Your task to perform on an android device: toggle sleep mode Image 0: 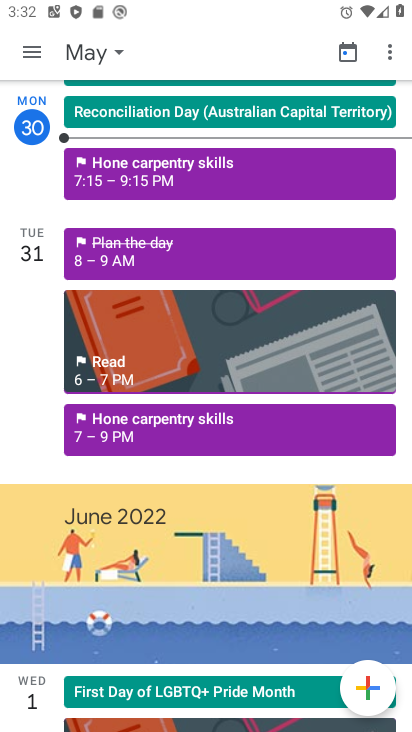
Step 0: press home button
Your task to perform on an android device: toggle sleep mode Image 1: 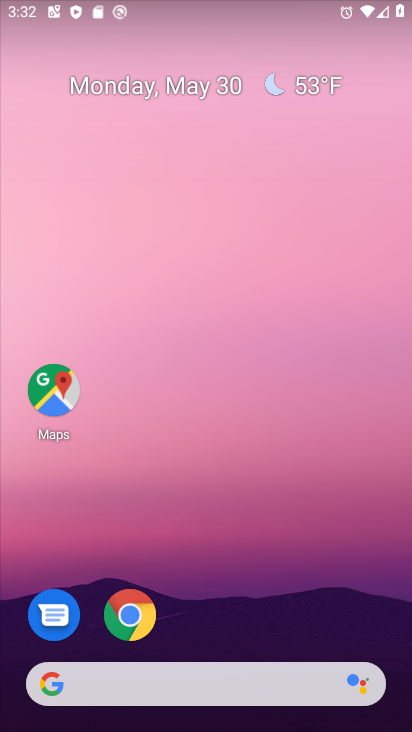
Step 1: drag from (334, 10) to (254, 455)
Your task to perform on an android device: toggle sleep mode Image 2: 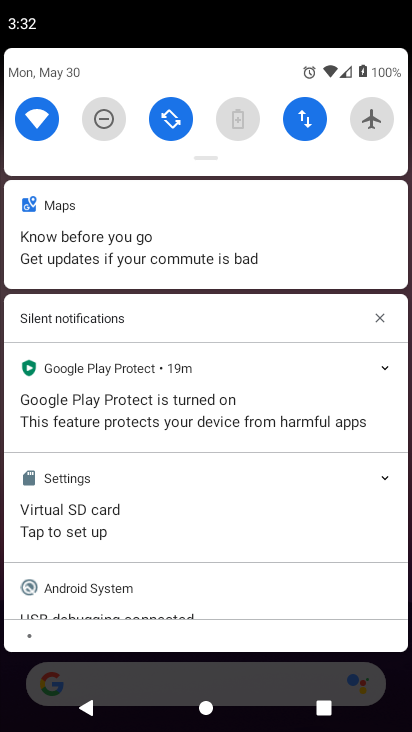
Step 2: drag from (163, 149) to (145, 526)
Your task to perform on an android device: toggle sleep mode Image 3: 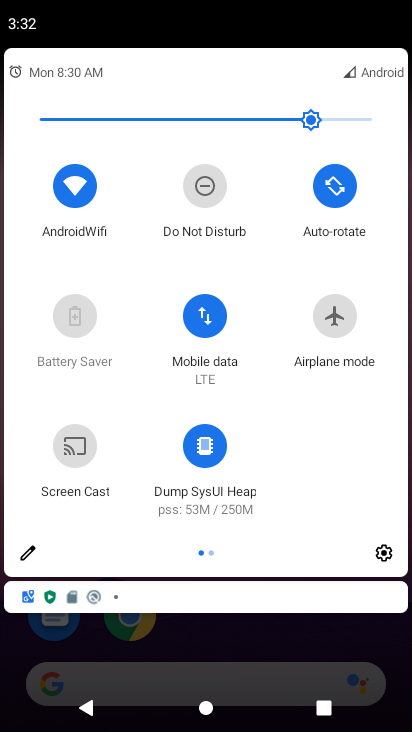
Step 3: click (32, 548)
Your task to perform on an android device: toggle sleep mode Image 4: 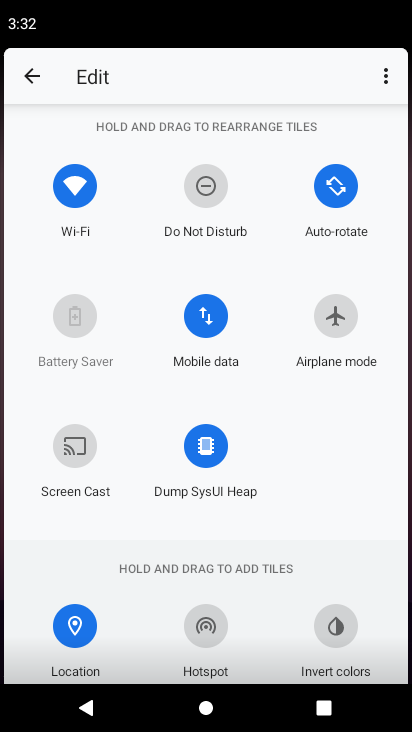
Step 4: task complete